Your task to perform on an android device: Do I have any events tomorrow? Image 0: 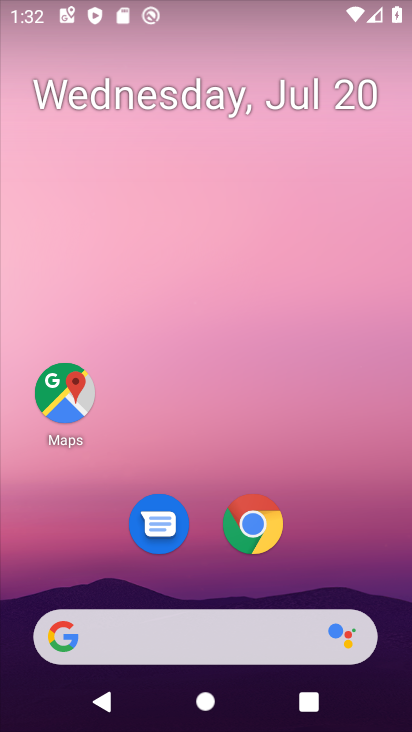
Step 0: drag from (325, 544) to (347, 24)
Your task to perform on an android device: Do I have any events tomorrow? Image 1: 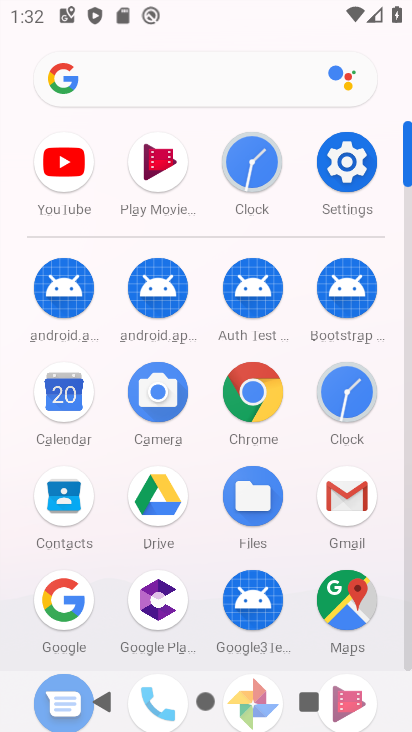
Step 1: click (68, 388)
Your task to perform on an android device: Do I have any events tomorrow? Image 2: 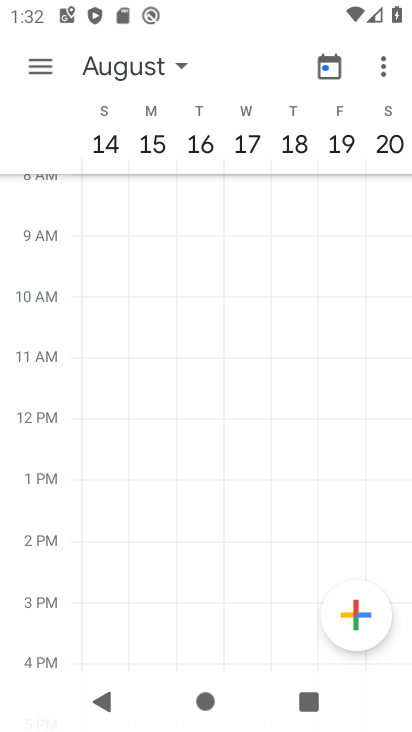
Step 2: task complete